Your task to perform on an android device: delete browsing data in the chrome app Image 0: 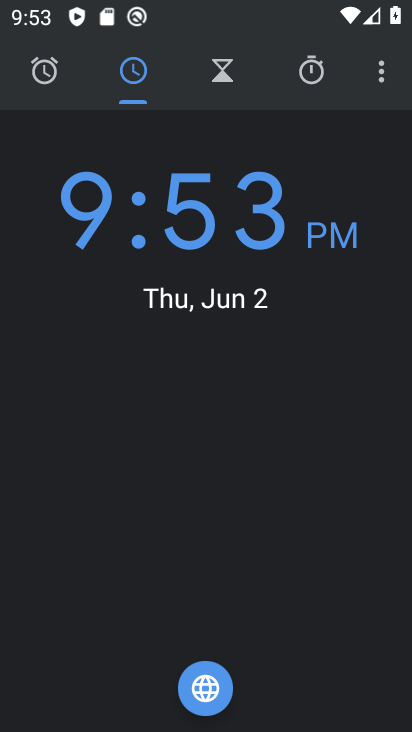
Step 0: press home button
Your task to perform on an android device: delete browsing data in the chrome app Image 1: 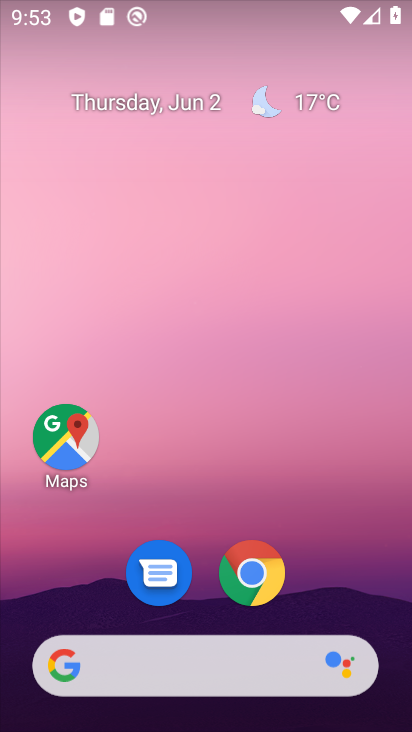
Step 1: drag from (343, 534) to (336, 24)
Your task to perform on an android device: delete browsing data in the chrome app Image 2: 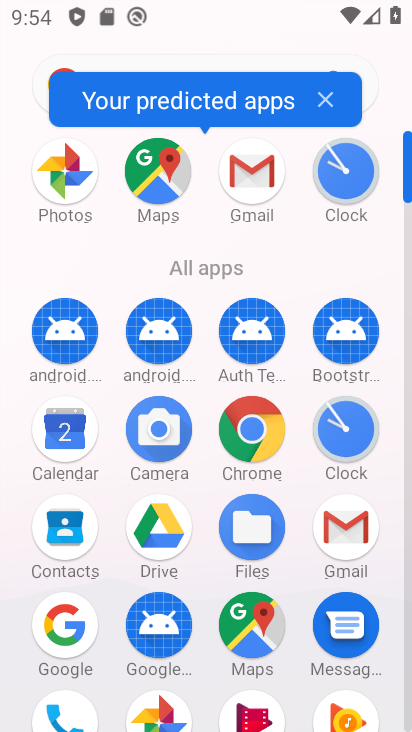
Step 2: click (258, 417)
Your task to perform on an android device: delete browsing data in the chrome app Image 3: 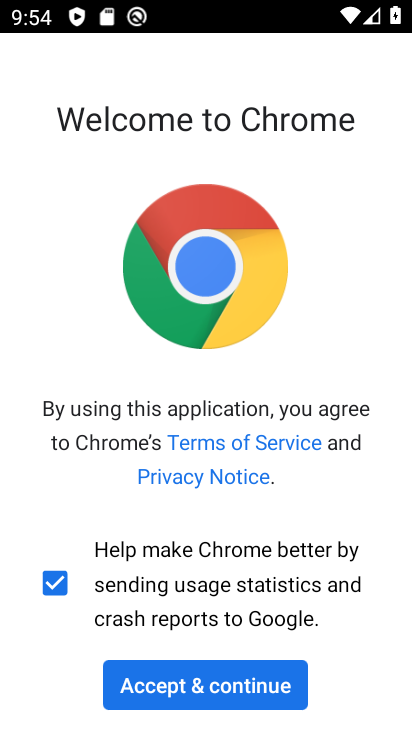
Step 3: click (204, 681)
Your task to perform on an android device: delete browsing data in the chrome app Image 4: 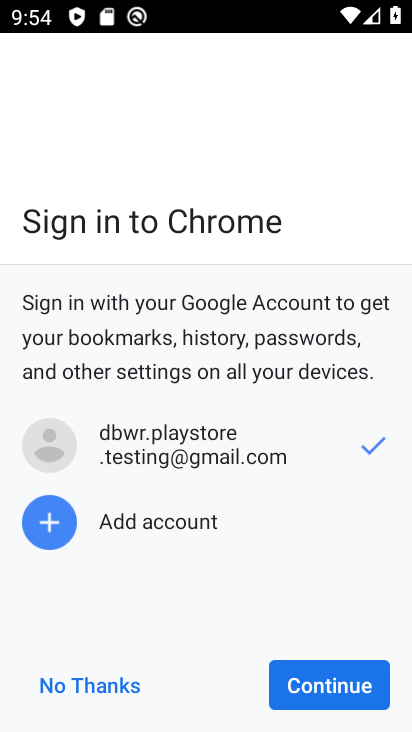
Step 4: click (111, 687)
Your task to perform on an android device: delete browsing data in the chrome app Image 5: 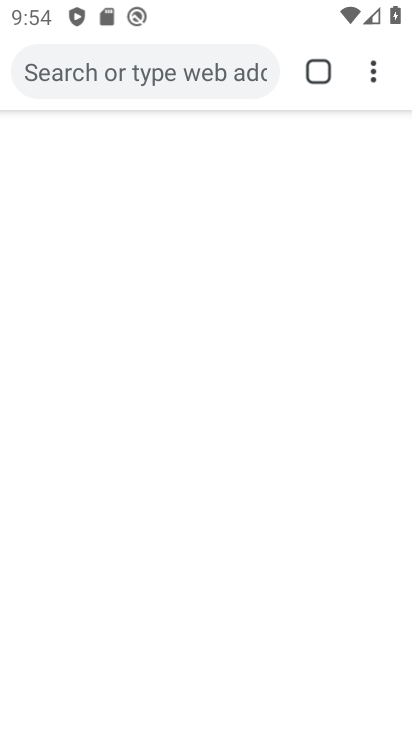
Step 5: task complete